Your task to perform on an android device: search for starred emails in the gmail app Image 0: 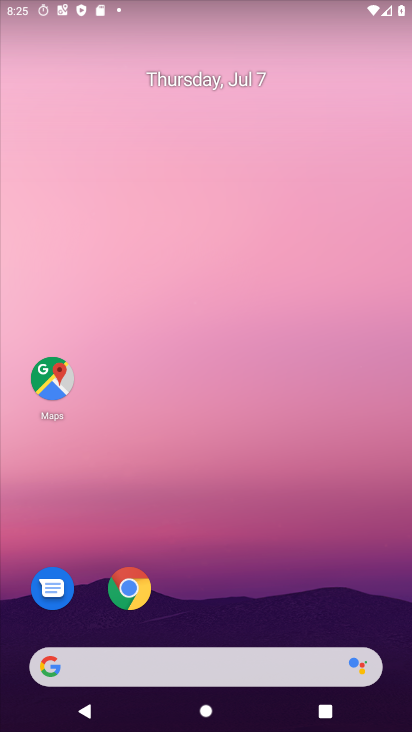
Step 0: drag from (172, 645) to (302, 109)
Your task to perform on an android device: search for starred emails in the gmail app Image 1: 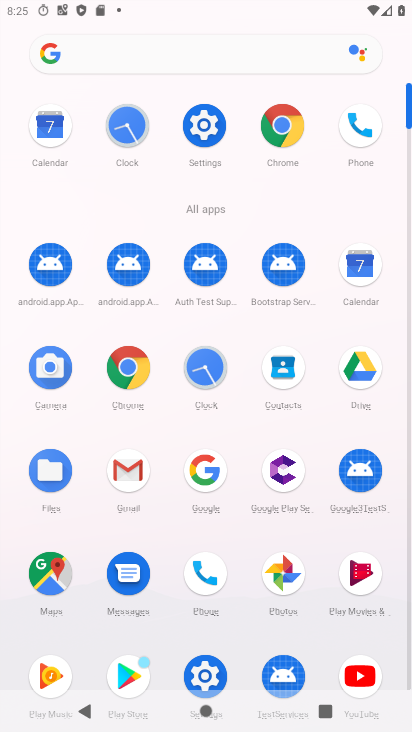
Step 1: click (127, 486)
Your task to perform on an android device: search for starred emails in the gmail app Image 2: 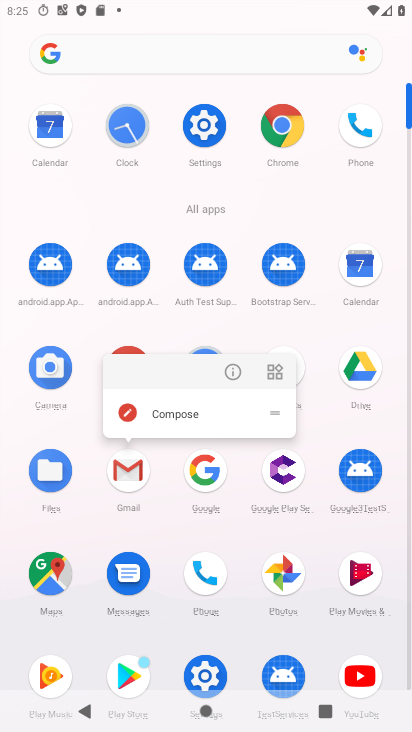
Step 2: click (123, 479)
Your task to perform on an android device: search for starred emails in the gmail app Image 3: 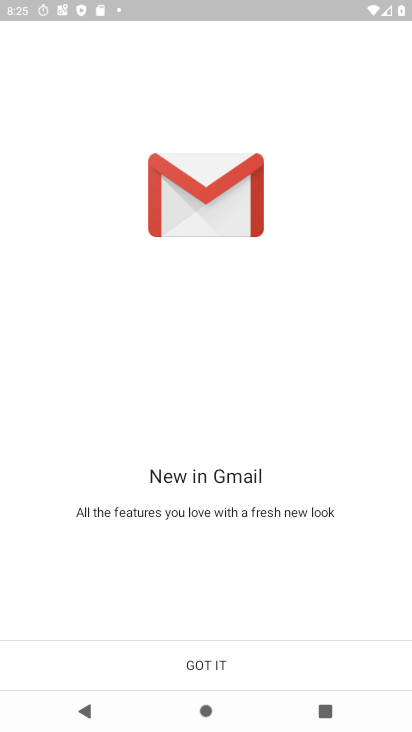
Step 3: click (217, 671)
Your task to perform on an android device: search for starred emails in the gmail app Image 4: 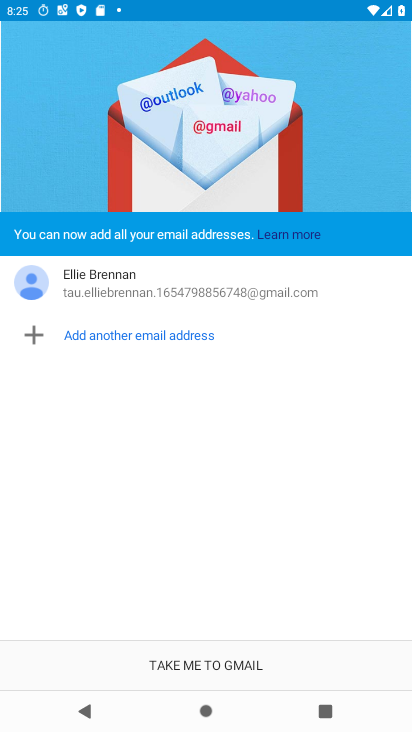
Step 4: click (218, 668)
Your task to perform on an android device: search for starred emails in the gmail app Image 5: 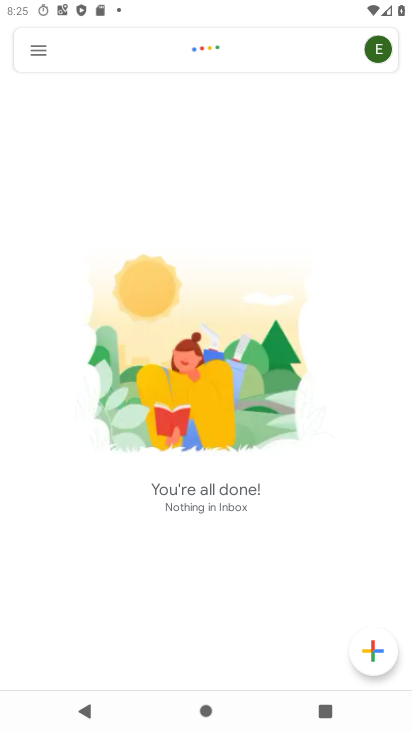
Step 5: click (30, 48)
Your task to perform on an android device: search for starred emails in the gmail app Image 6: 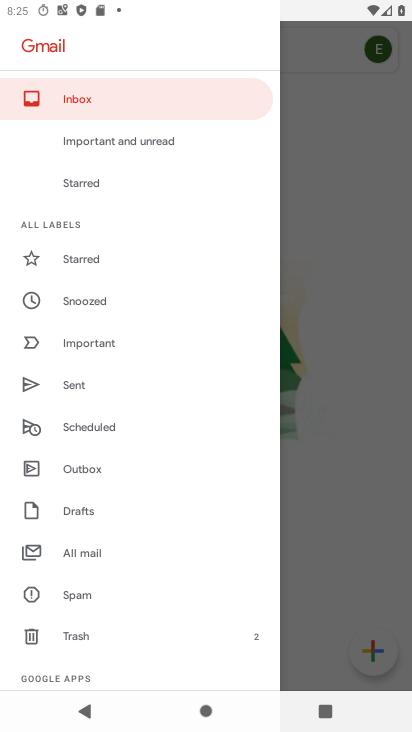
Step 6: click (84, 257)
Your task to perform on an android device: search for starred emails in the gmail app Image 7: 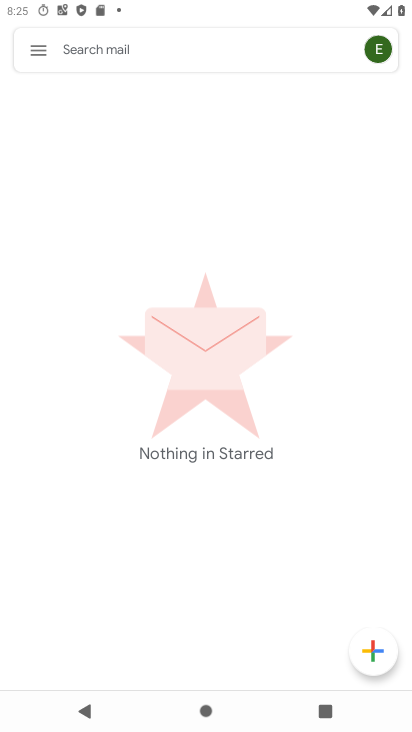
Step 7: task complete